Your task to perform on an android device: open a bookmark in the chrome app Image 0: 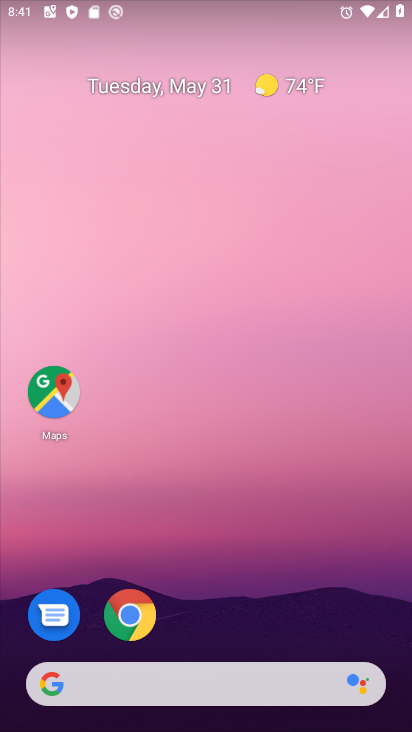
Step 0: click (155, 628)
Your task to perform on an android device: open a bookmark in the chrome app Image 1: 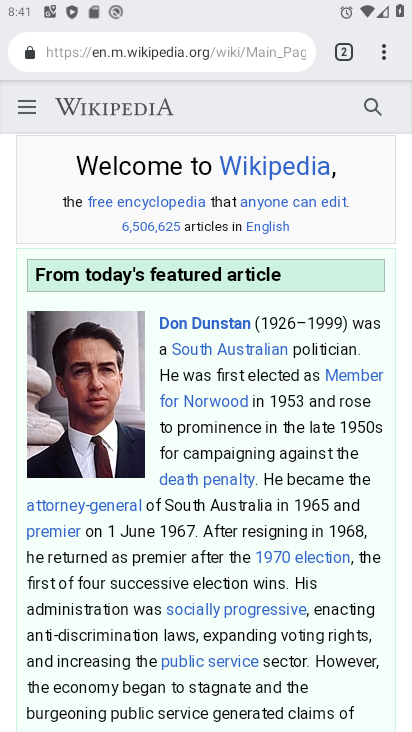
Step 1: drag from (386, 48) to (215, 188)
Your task to perform on an android device: open a bookmark in the chrome app Image 2: 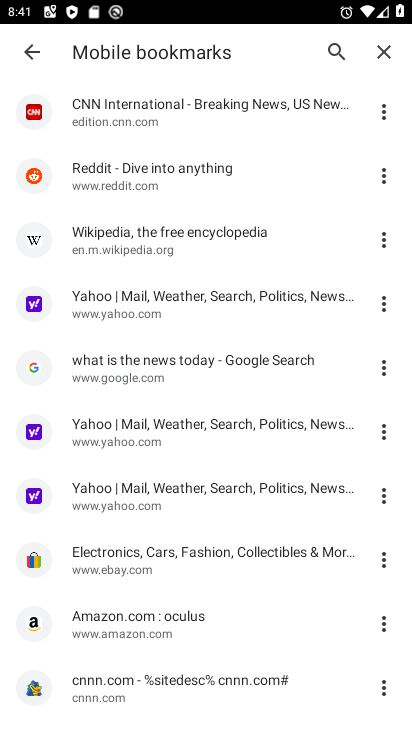
Step 2: click (130, 484)
Your task to perform on an android device: open a bookmark in the chrome app Image 3: 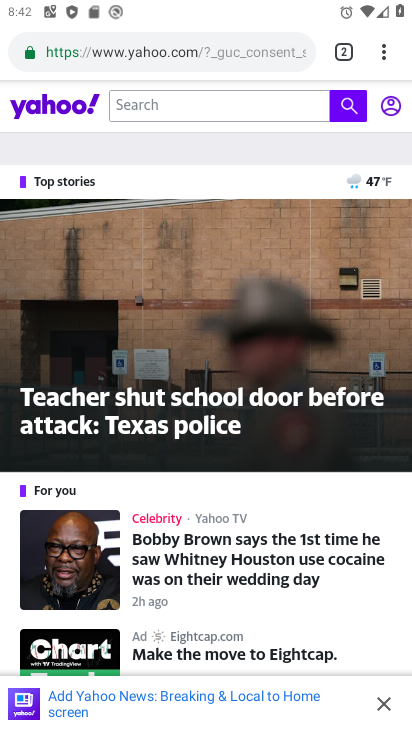
Step 3: task complete